Your task to perform on an android device: Is it going to rain today? Image 0: 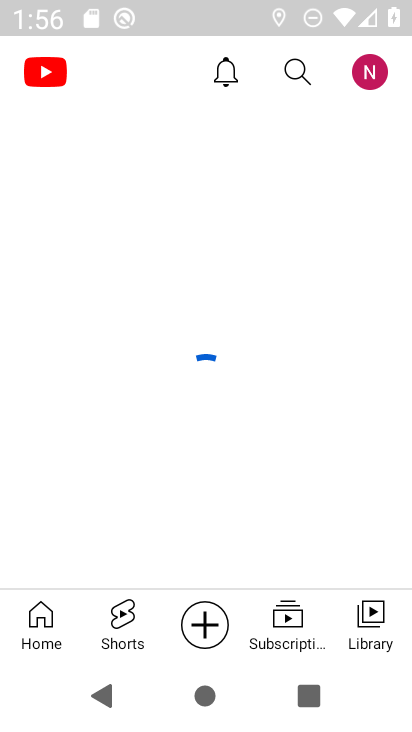
Step 0: press home button
Your task to perform on an android device: Is it going to rain today? Image 1: 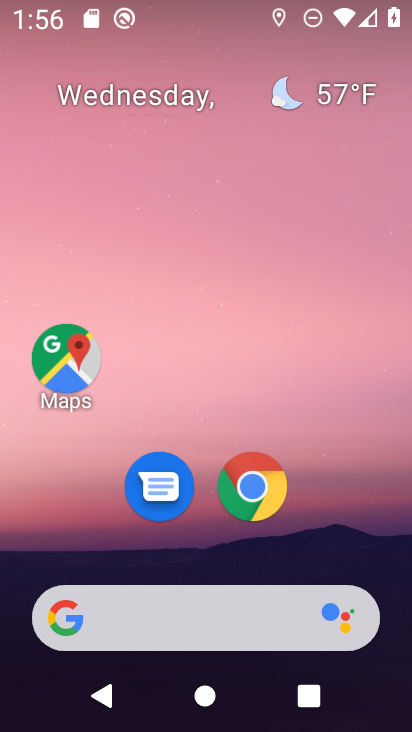
Step 1: drag from (353, 522) to (385, 69)
Your task to perform on an android device: Is it going to rain today? Image 2: 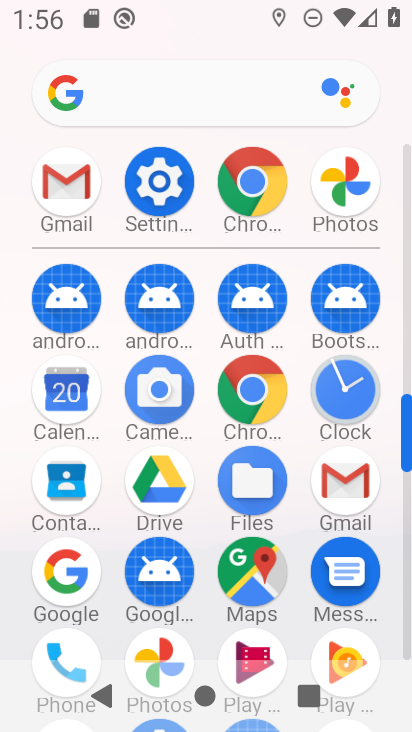
Step 2: click (240, 101)
Your task to perform on an android device: Is it going to rain today? Image 3: 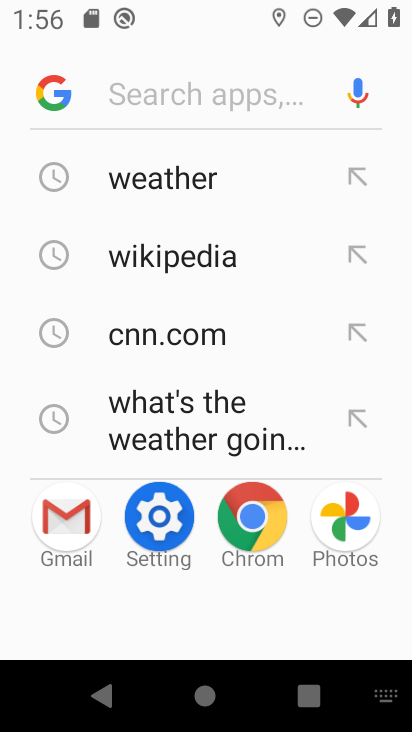
Step 3: click (203, 176)
Your task to perform on an android device: Is it going to rain today? Image 4: 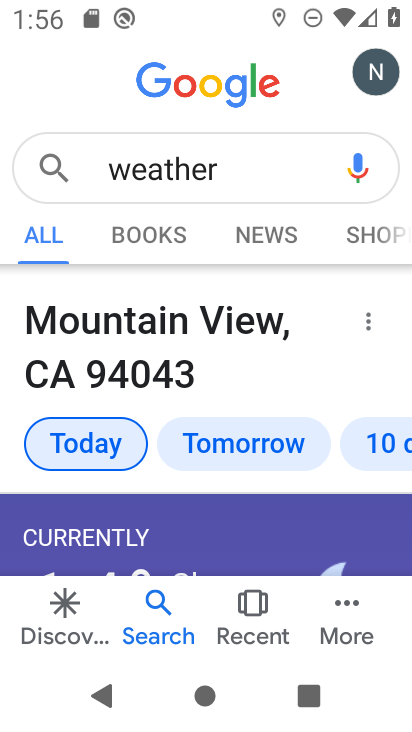
Step 4: task complete